Your task to perform on an android device: install app "Firefox Browser" Image 0: 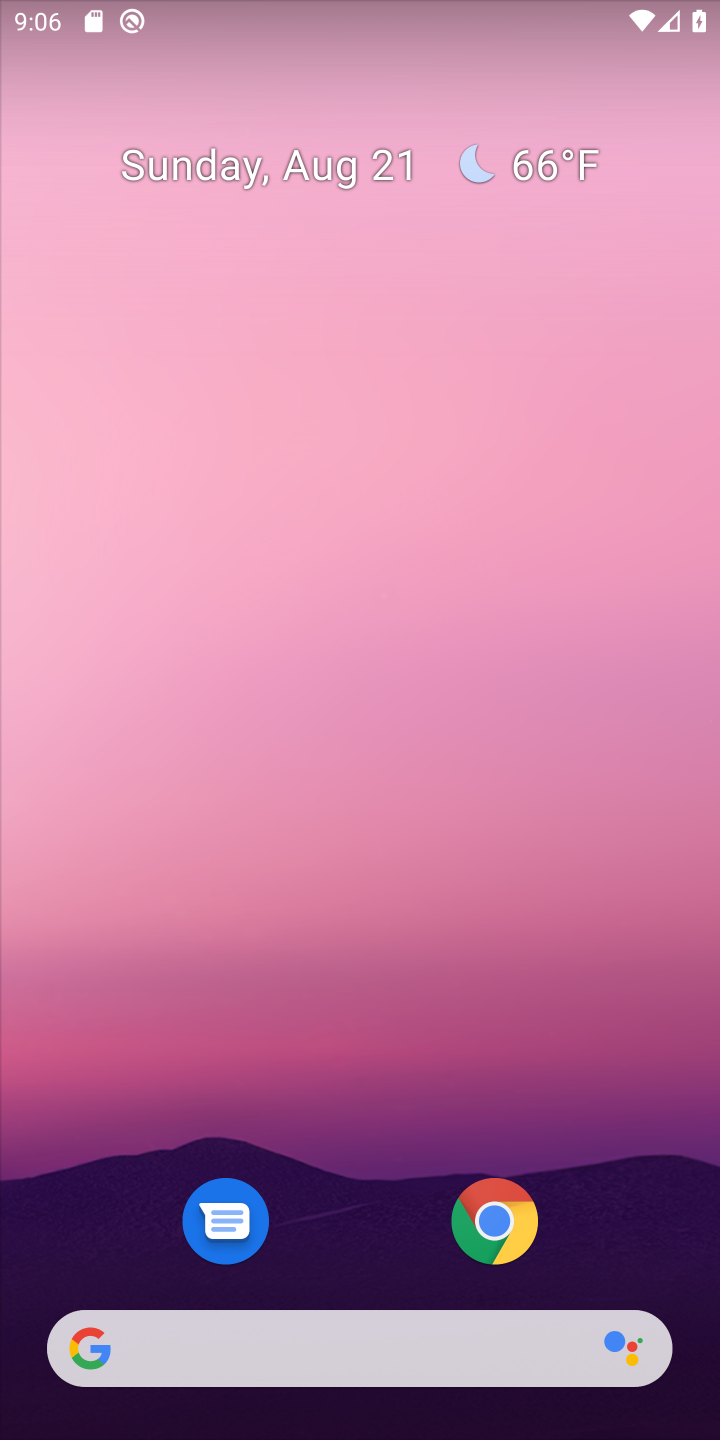
Step 0: drag from (348, 1047) to (361, 276)
Your task to perform on an android device: install app "Firefox Browser" Image 1: 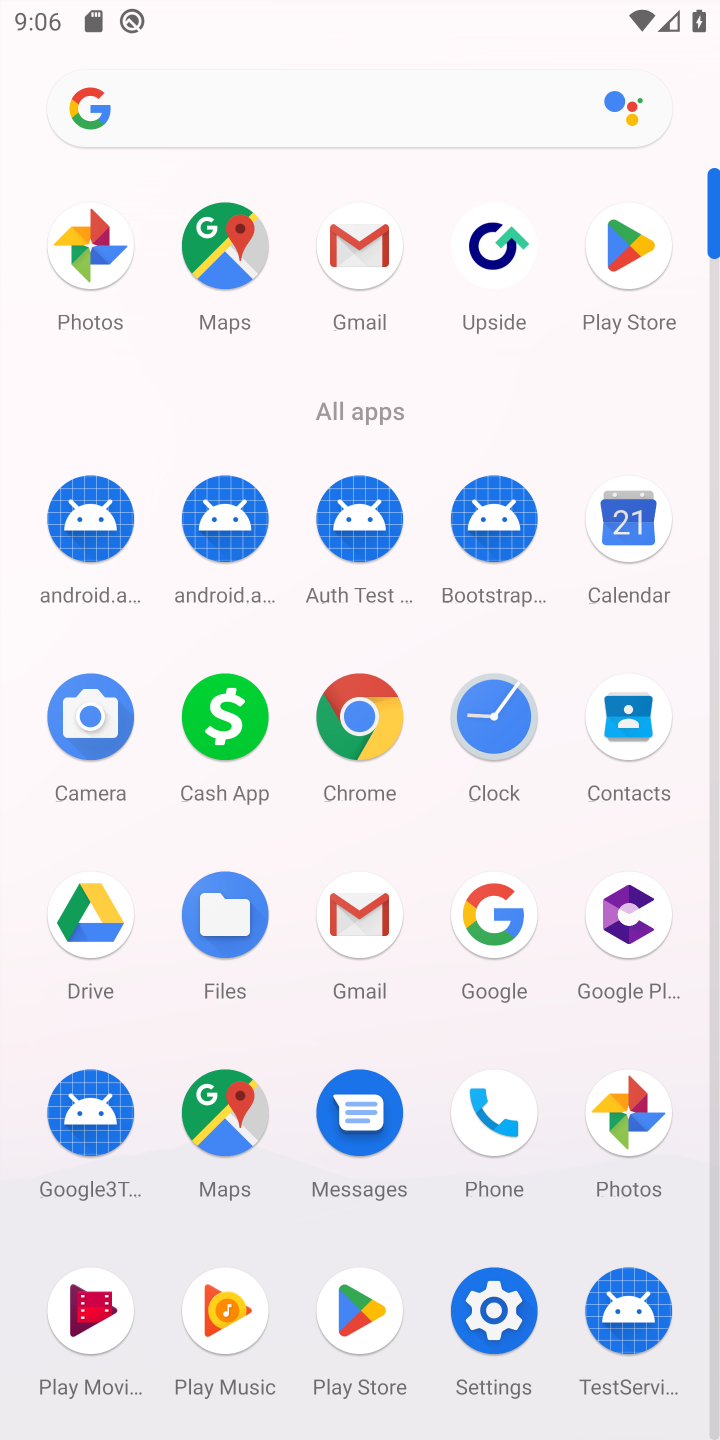
Step 1: click (642, 274)
Your task to perform on an android device: install app "Firefox Browser" Image 2: 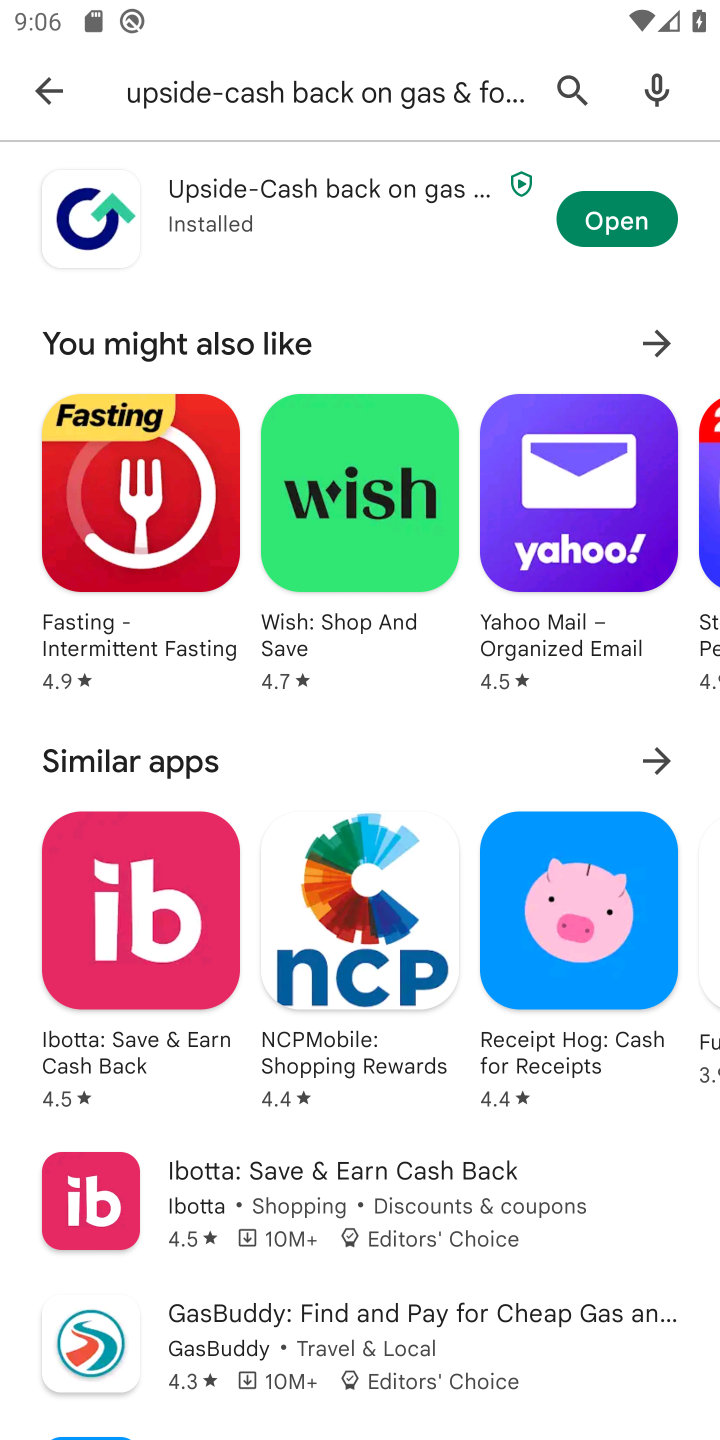
Step 2: click (567, 89)
Your task to perform on an android device: install app "Firefox Browser" Image 3: 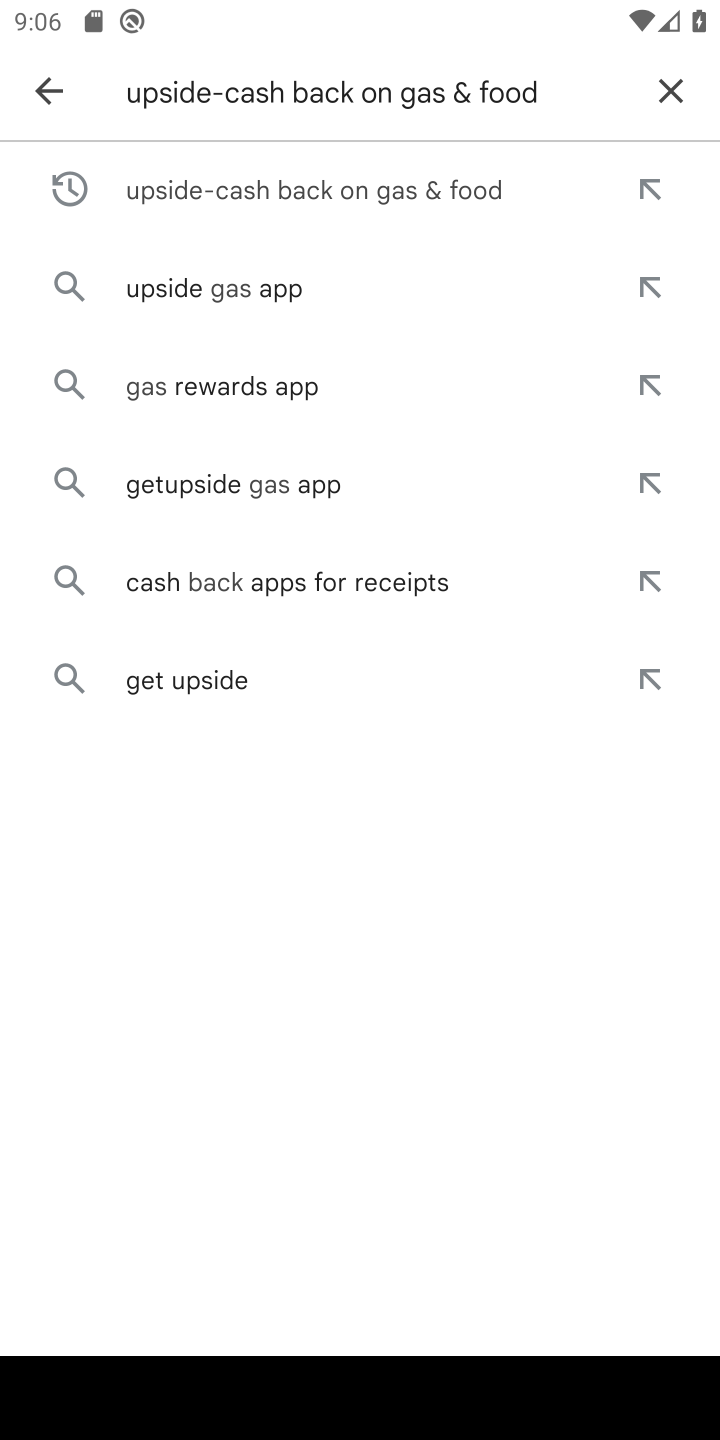
Step 3: click (683, 99)
Your task to perform on an android device: install app "Firefox Browser" Image 4: 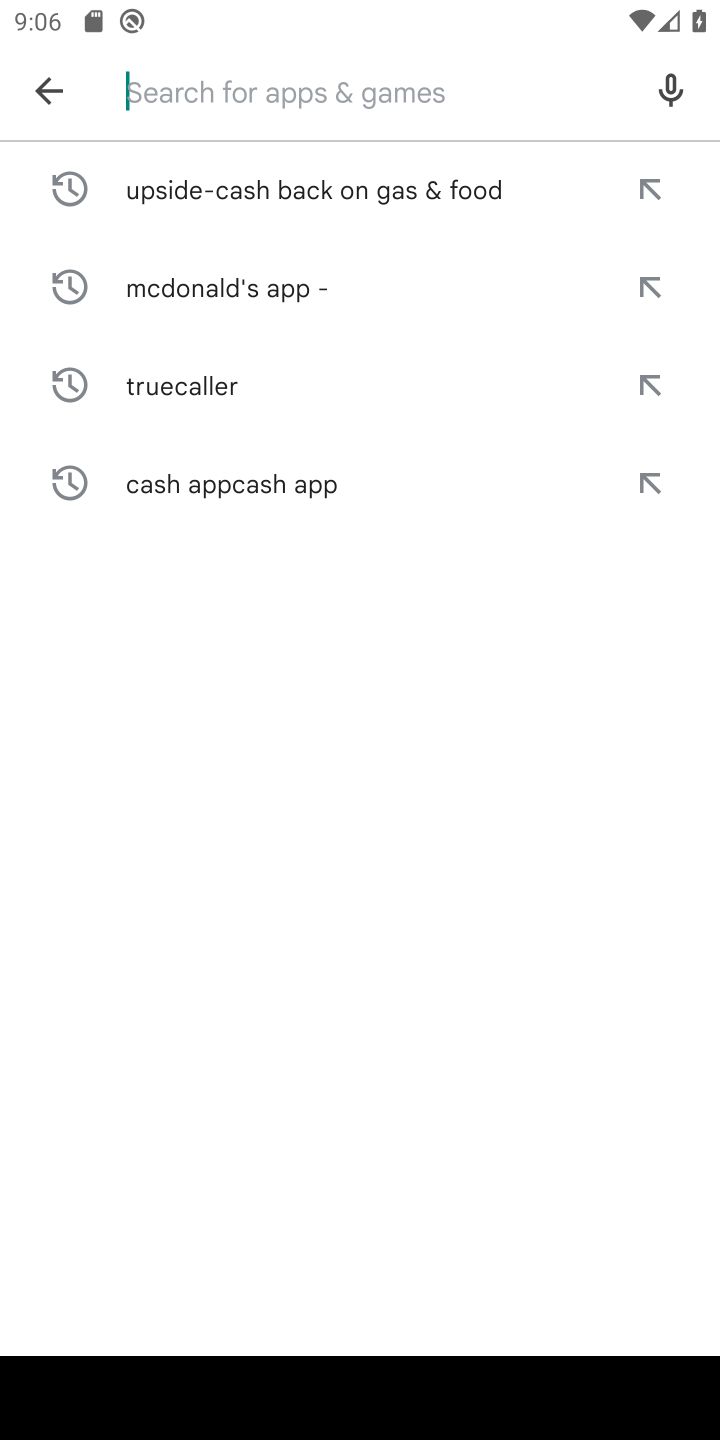
Step 4: type "Firefox Browser"
Your task to perform on an android device: install app "Firefox Browser" Image 5: 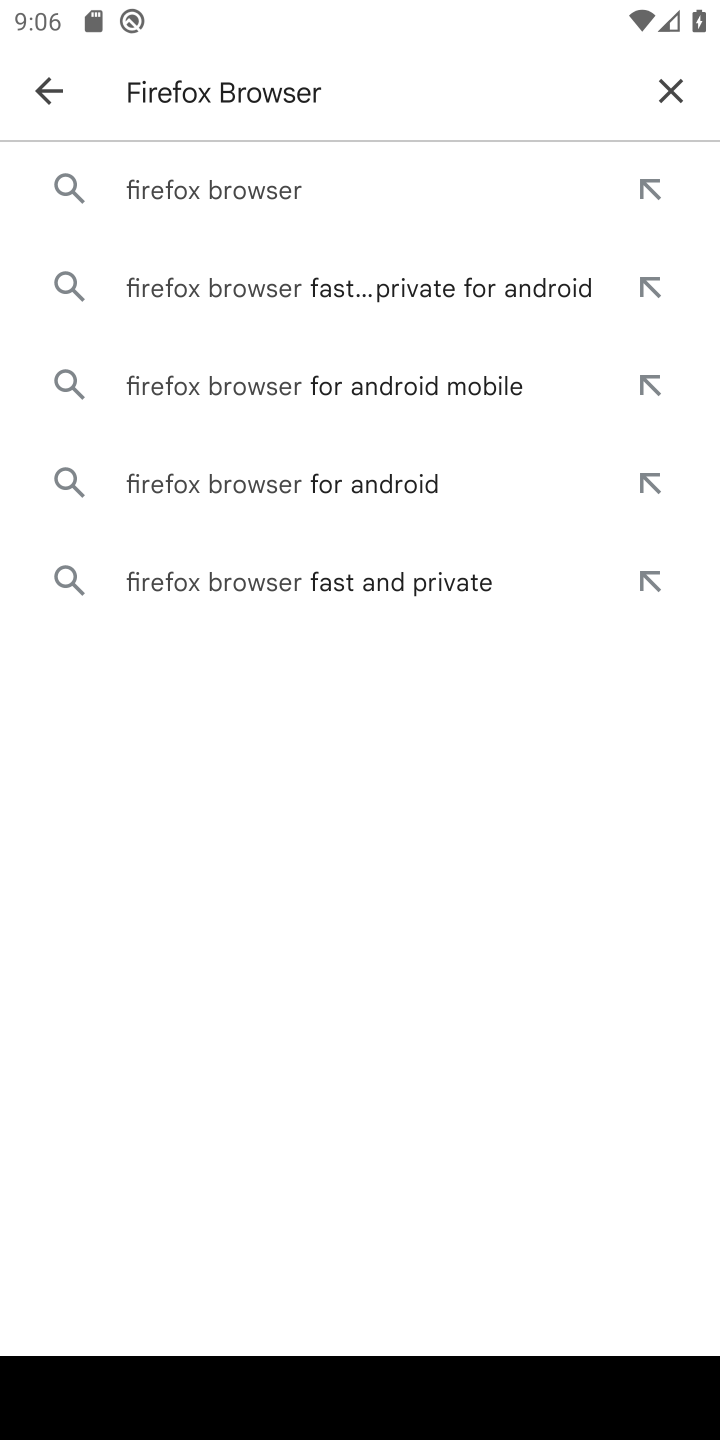
Step 5: click (240, 196)
Your task to perform on an android device: install app "Firefox Browser" Image 6: 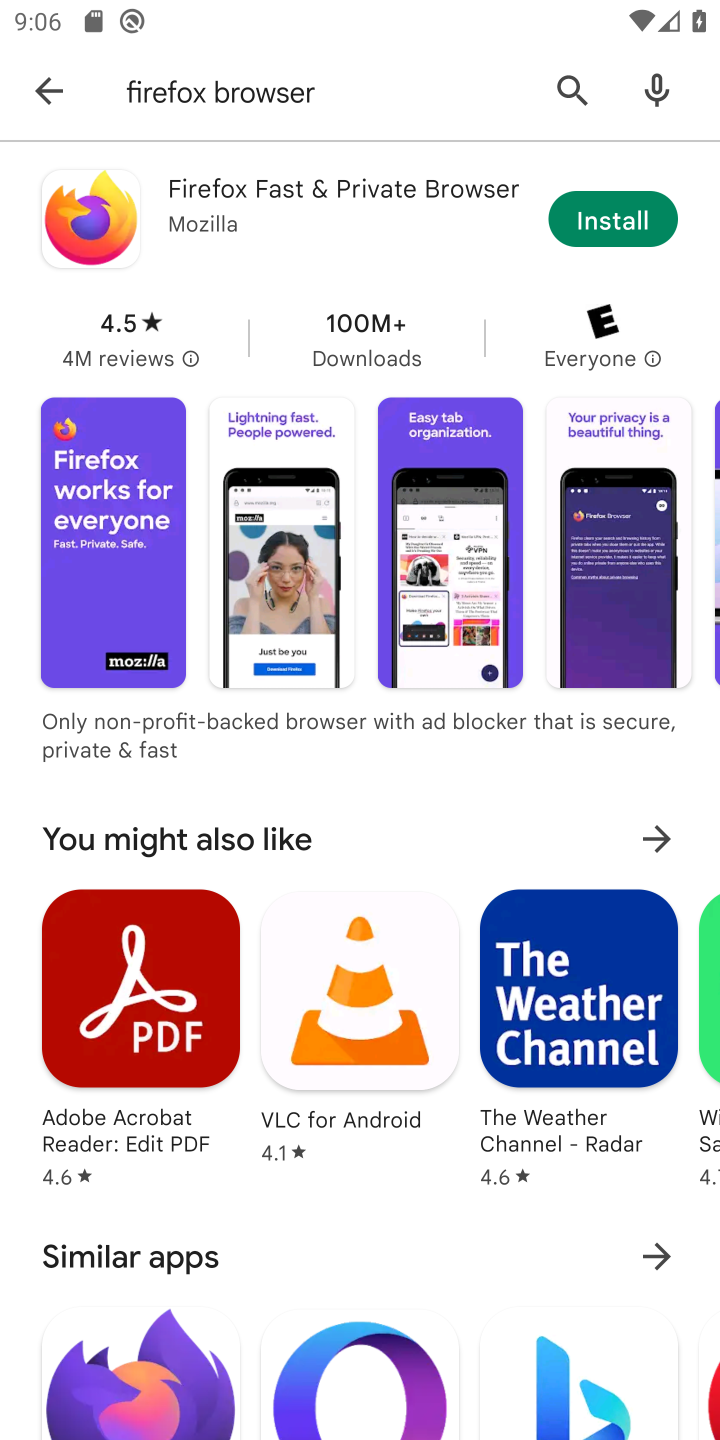
Step 6: click (627, 220)
Your task to perform on an android device: install app "Firefox Browser" Image 7: 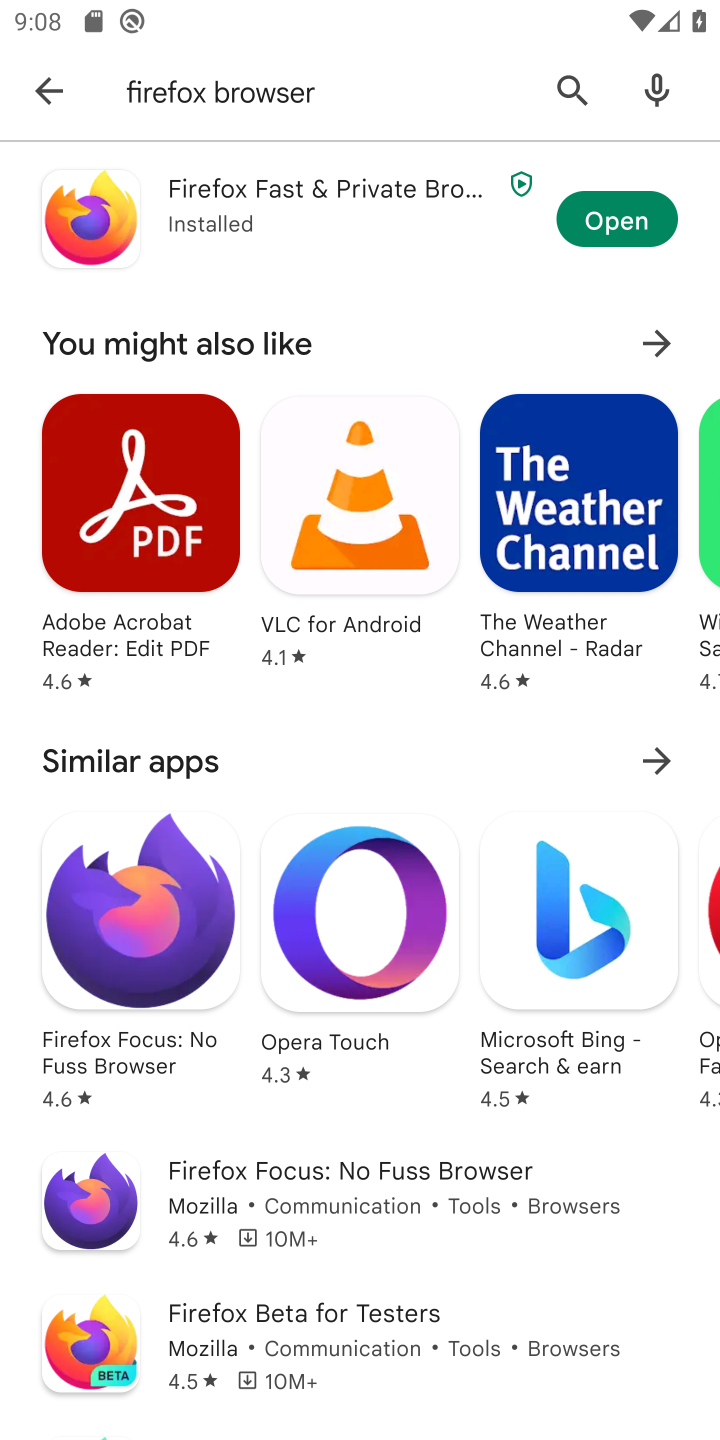
Step 7: task complete